Your task to perform on an android device: toggle sleep mode Image 0: 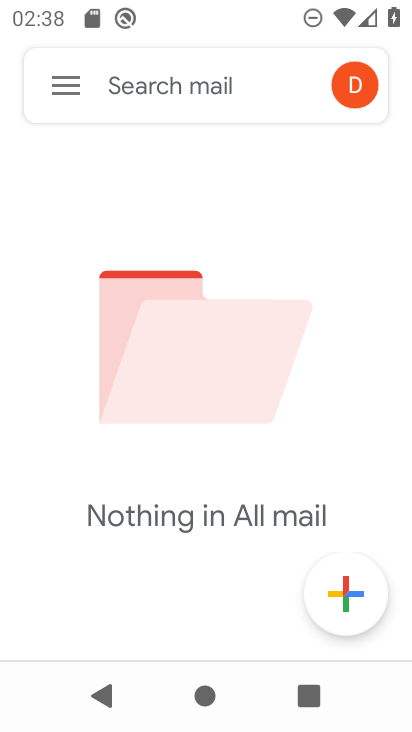
Step 0: press home button
Your task to perform on an android device: toggle sleep mode Image 1: 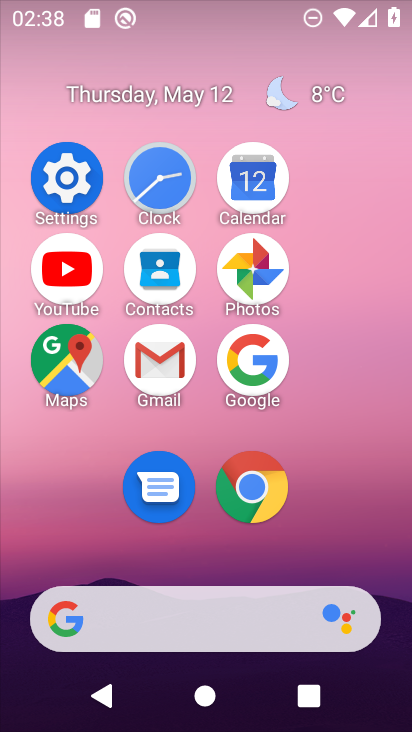
Step 1: click (90, 189)
Your task to perform on an android device: toggle sleep mode Image 2: 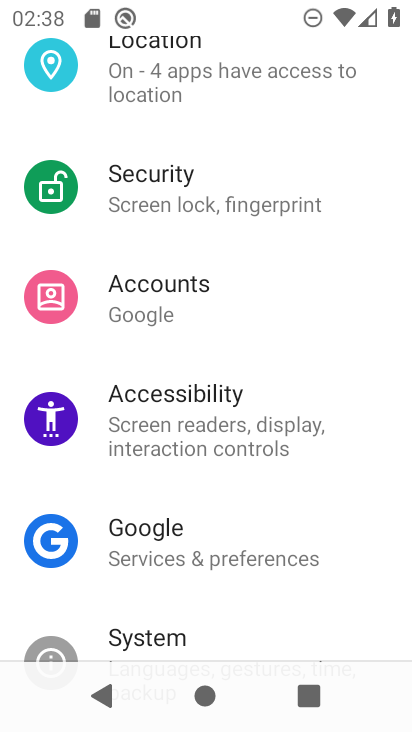
Step 2: drag from (271, 129) to (289, 501)
Your task to perform on an android device: toggle sleep mode Image 3: 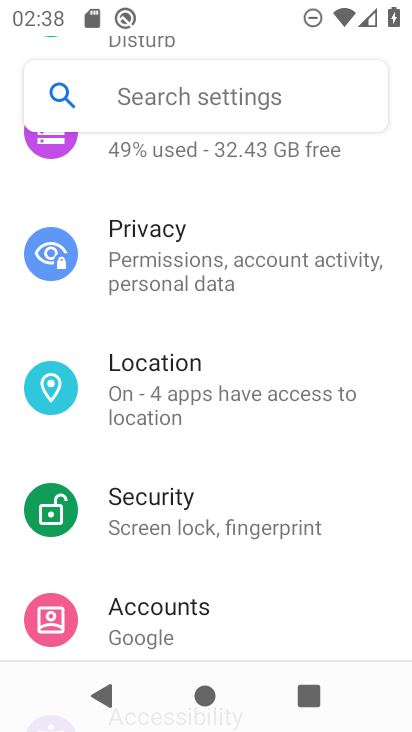
Step 3: drag from (273, 193) to (283, 543)
Your task to perform on an android device: toggle sleep mode Image 4: 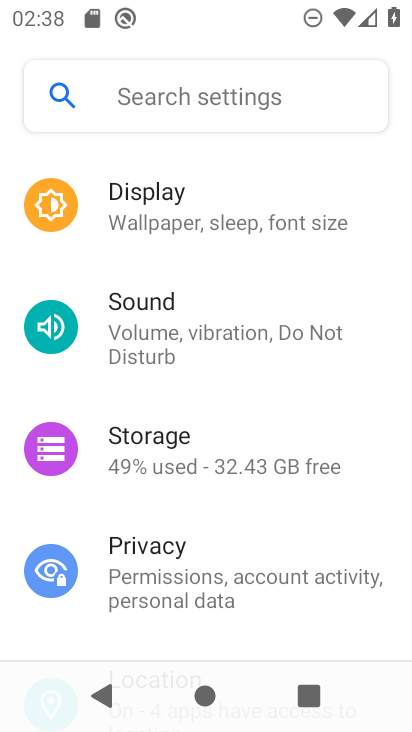
Step 4: click (292, 209)
Your task to perform on an android device: toggle sleep mode Image 5: 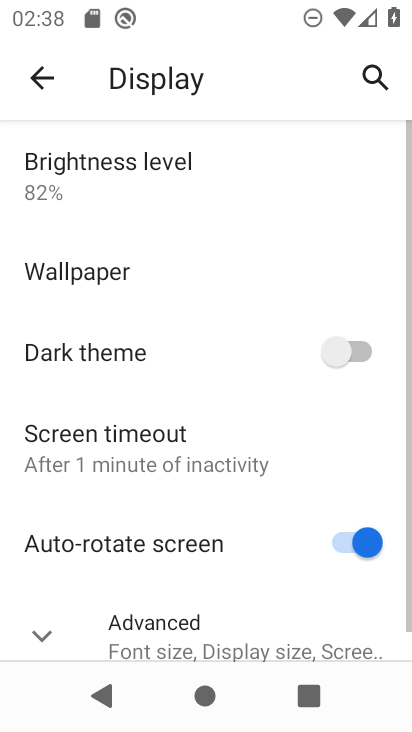
Step 5: click (172, 427)
Your task to perform on an android device: toggle sleep mode Image 6: 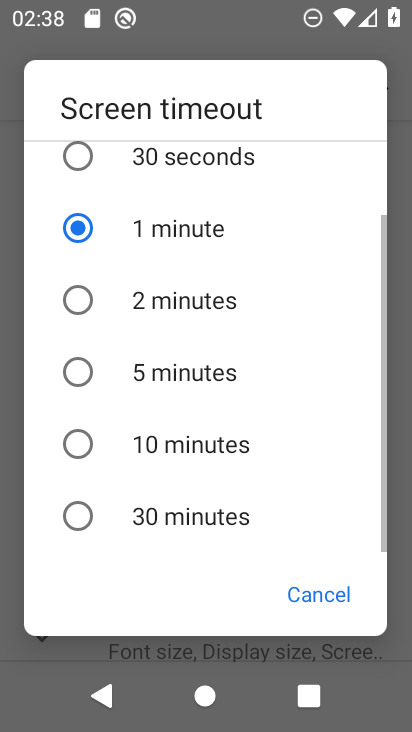
Step 6: click (158, 308)
Your task to perform on an android device: toggle sleep mode Image 7: 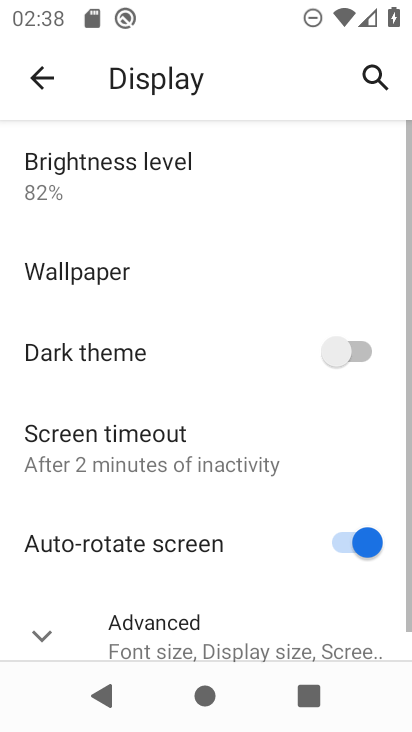
Step 7: task complete